Your task to perform on an android device: check google app version Image 0: 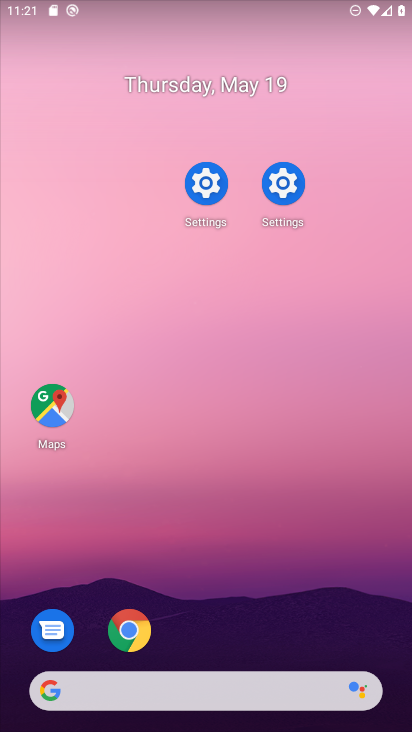
Step 0: drag from (308, 701) to (180, 121)
Your task to perform on an android device: check google app version Image 1: 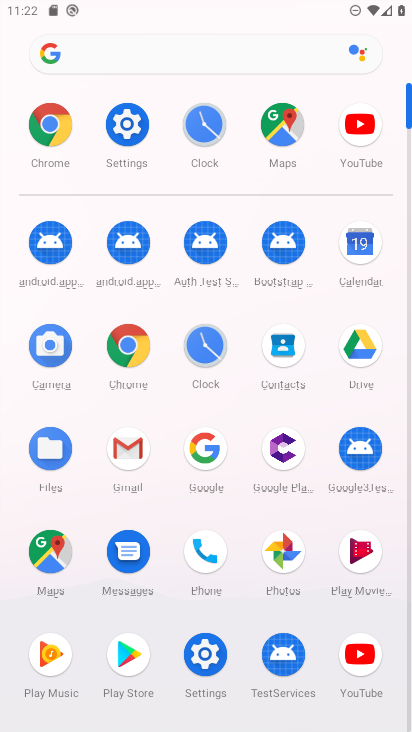
Step 1: click (208, 453)
Your task to perform on an android device: check google app version Image 2: 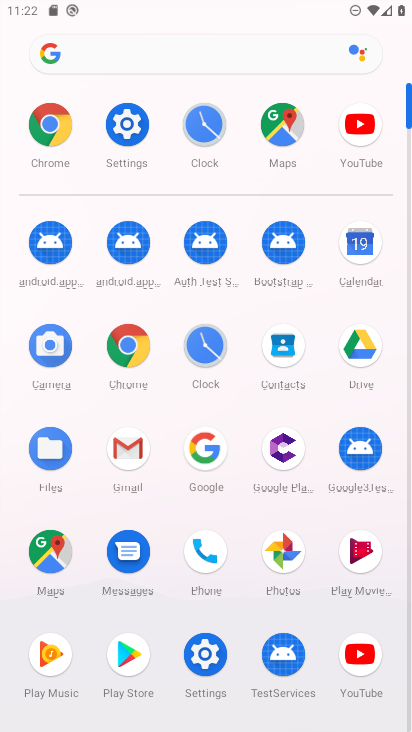
Step 2: click (209, 452)
Your task to perform on an android device: check google app version Image 3: 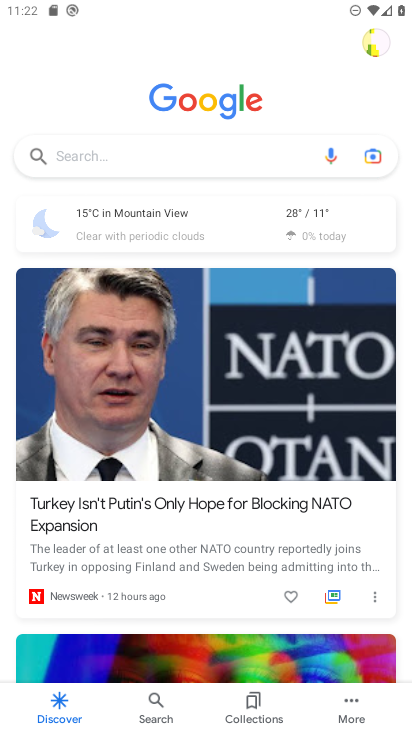
Step 3: click (346, 707)
Your task to perform on an android device: check google app version Image 4: 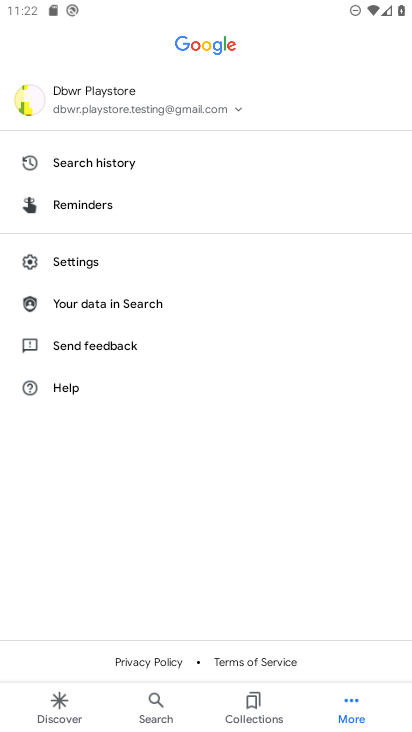
Step 4: click (348, 693)
Your task to perform on an android device: check google app version Image 5: 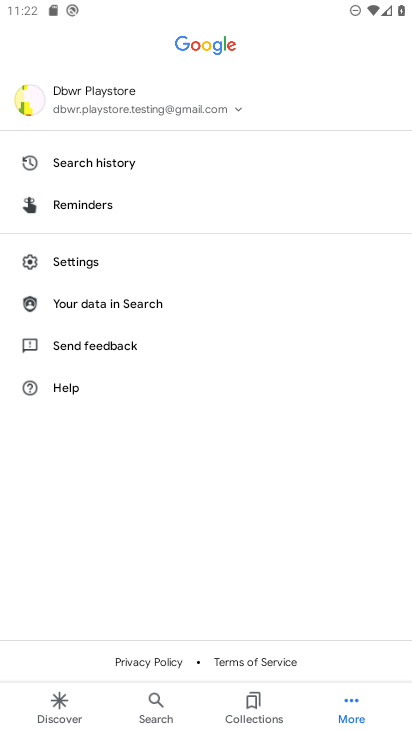
Step 5: click (68, 261)
Your task to perform on an android device: check google app version Image 6: 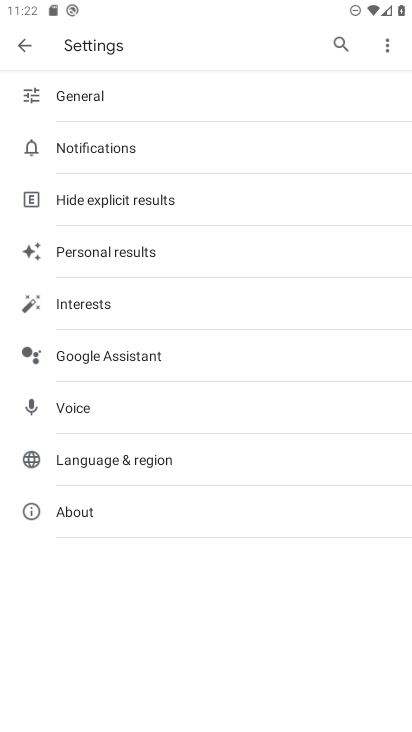
Step 6: click (64, 504)
Your task to perform on an android device: check google app version Image 7: 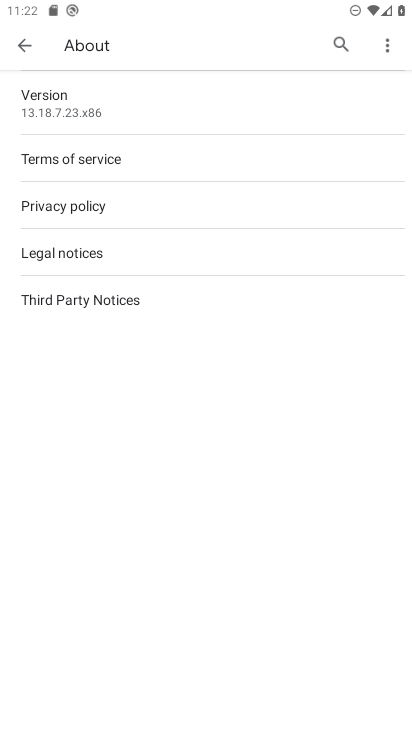
Step 7: click (66, 505)
Your task to perform on an android device: check google app version Image 8: 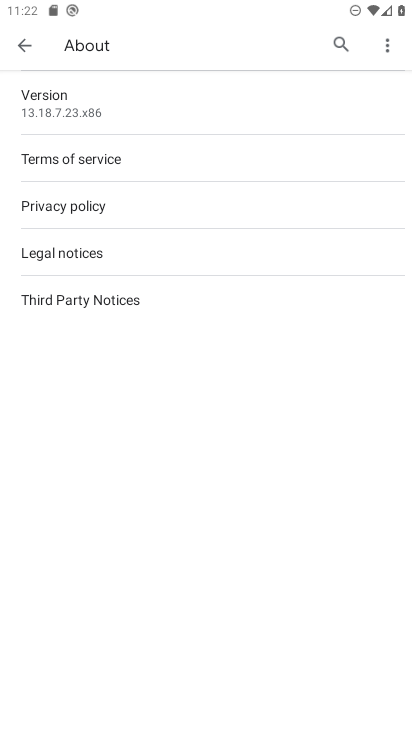
Step 8: click (66, 505)
Your task to perform on an android device: check google app version Image 9: 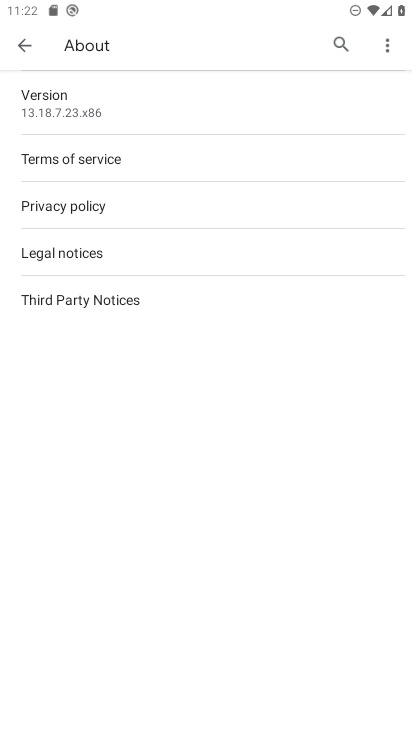
Step 9: task complete